Your task to perform on an android device: Go to location settings Image 0: 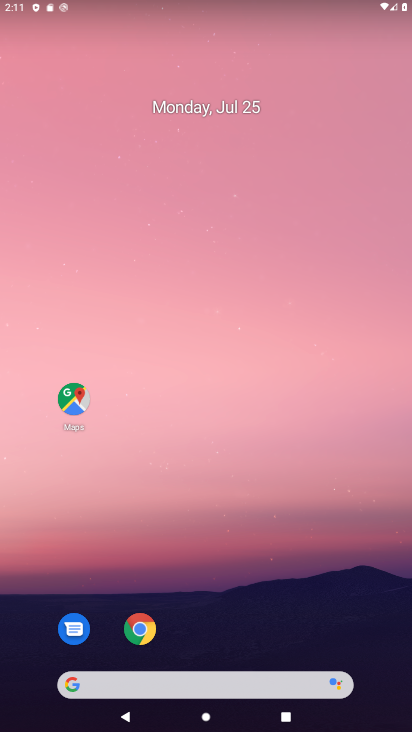
Step 0: drag from (219, 259) to (219, 89)
Your task to perform on an android device: Go to location settings Image 1: 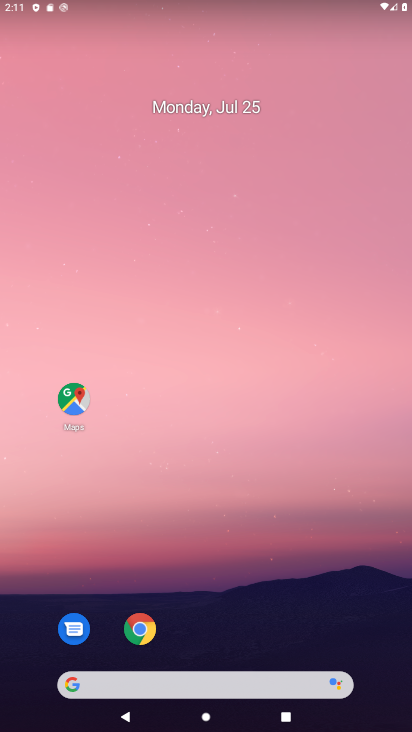
Step 1: drag from (216, 407) to (215, 21)
Your task to perform on an android device: Go to location settings Image 2: 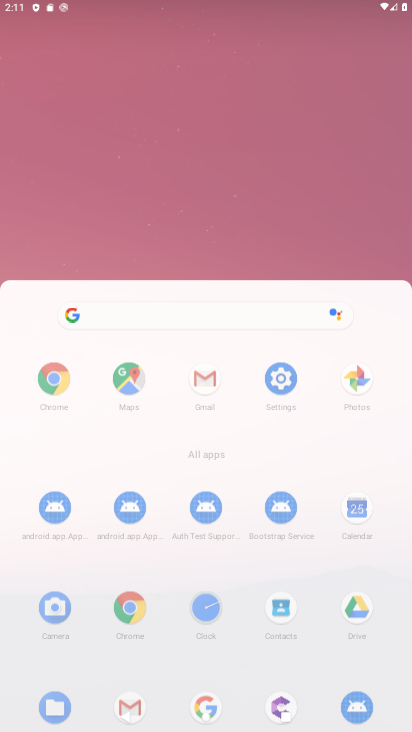
Step 2: drag from (260, 396) to (247, 8)
Your task to perform on an android device: Go to location settings Image 3: 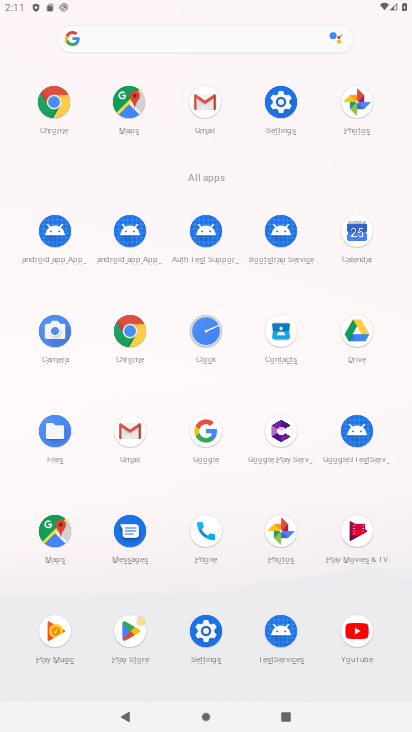
Step 3: drag from (279, 533) to (299, 101)
Your task to perform on an android device: Go to location settings Image 4: 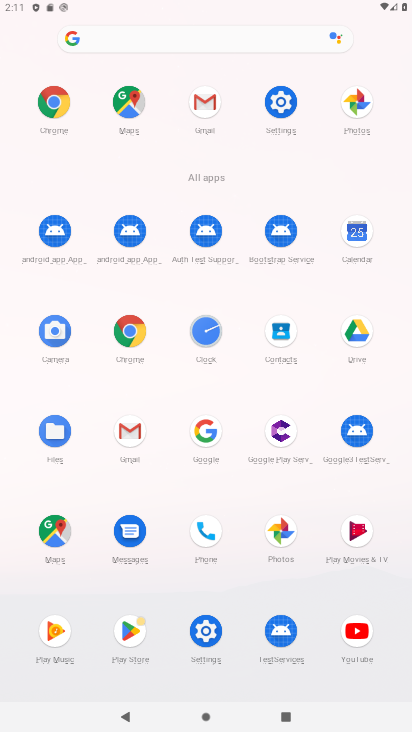
Step 4: click (193, 635)
Your task to perform on an android device: Go to location settings Image 5: 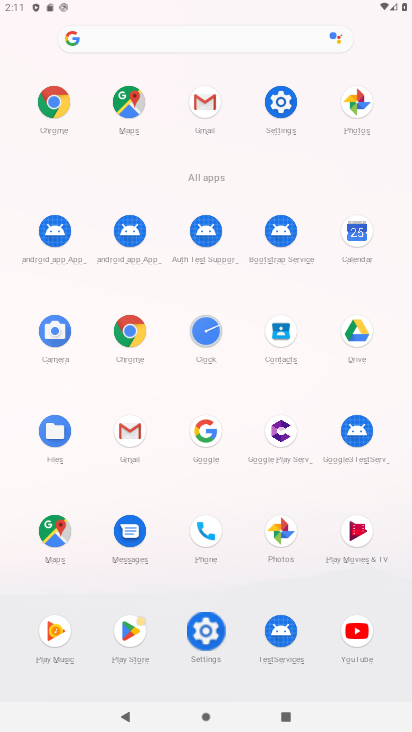
Step 5: click (197, 635)
Your task to perform on an android device: Go to location settings Image 6: 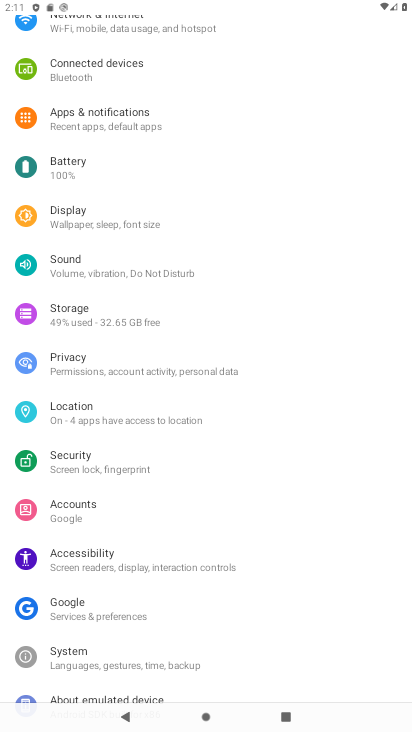
Step 6: click (196, 628)
Your task to perform on an android device: Go to location settings Image 7: 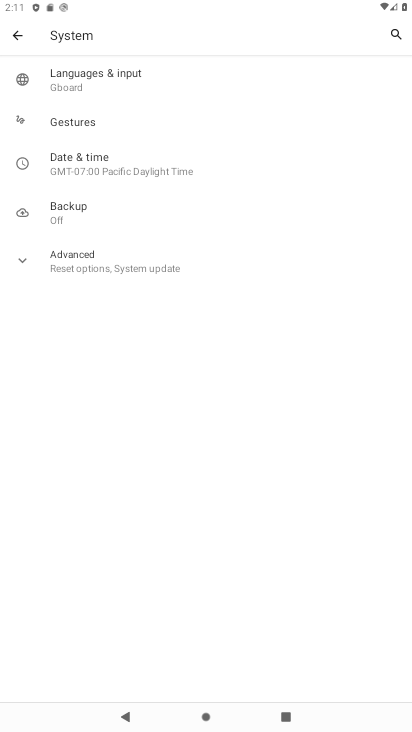
Step 7: click (6, 31)
Your task to perform on an android device: Go to location settings Image 8: 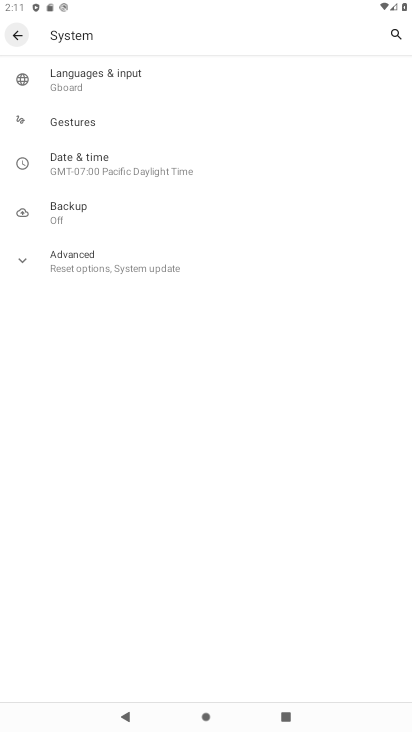
Step 8: click (6, 31)
Your task to perform on an android device: Go to location settings Image 9: 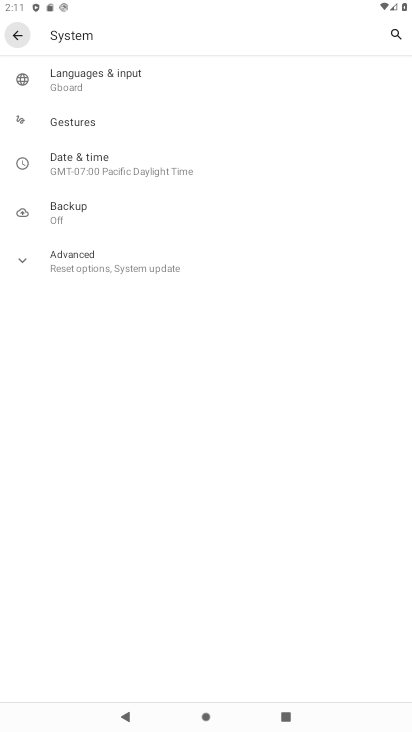
Step 9: click (11, 33)
Your task to perform on an android device: Go to location settings Image 10: 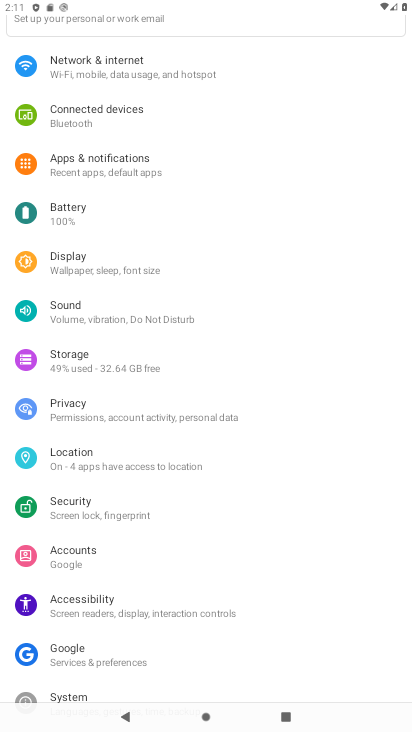
Step 10: click (71, 452)
Your task to perform on an android device: Go to location settings Image 11: 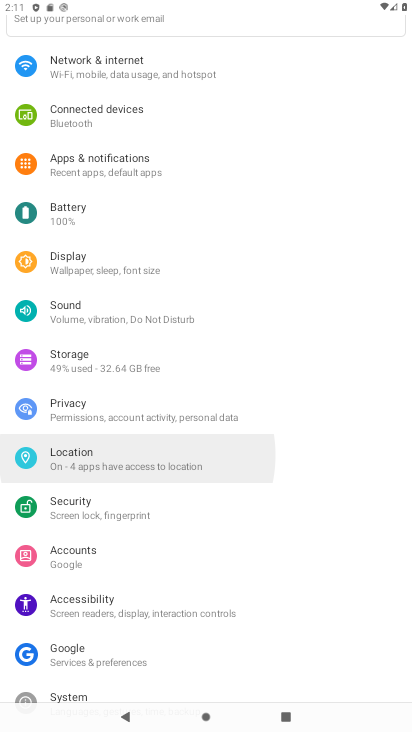
Step 11: click (72, 451)
Your task to perform on an android device: Go to location settings Image 12: 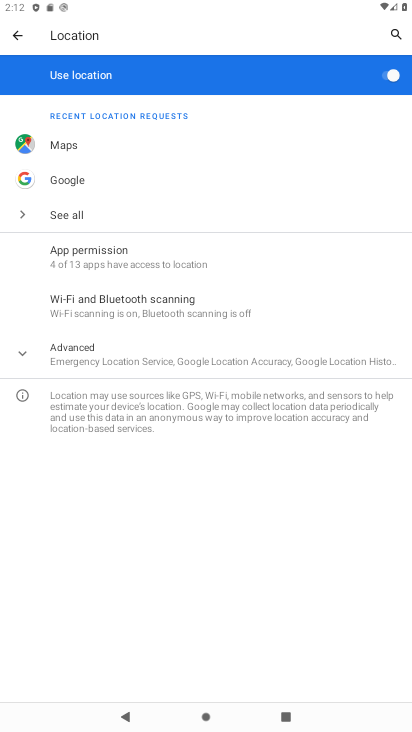
Step 12: task complete